Your task to perform on an android device: turn off improve location accuracy Image 0: 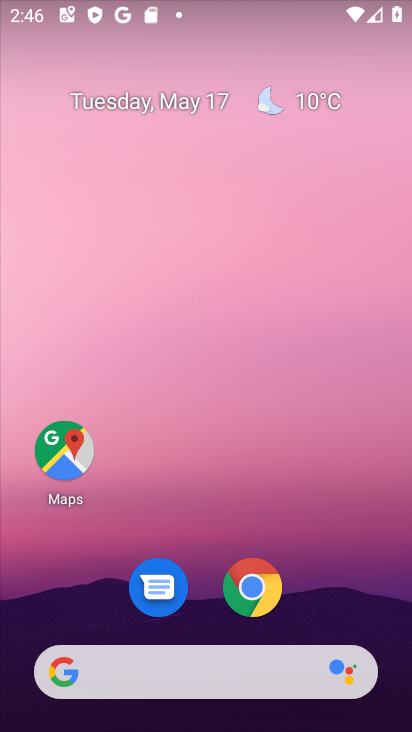
Step 0: drag from (292, 554) to (231, 39)
Your task to perform on an android device: turn off improve location accuracy Image 1: 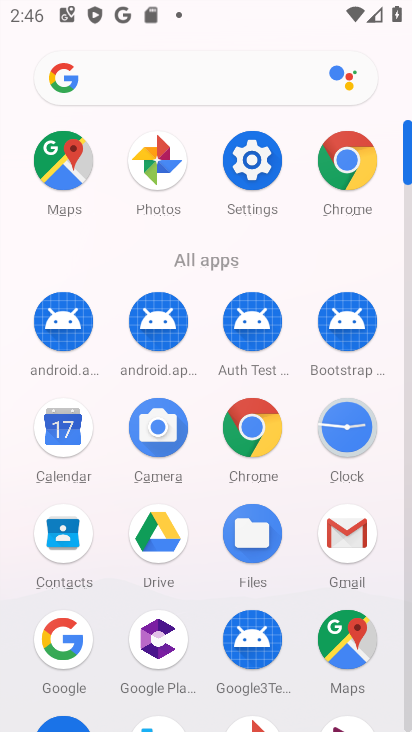
Step 1: click (252, 158)
Your task to perform on an android device: turn off improve location accuracy Image 2: 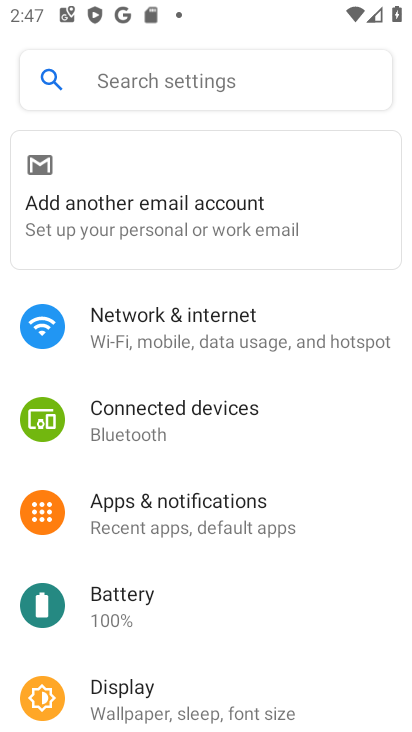
Step 2: drag from (330, 627) to (297, 184)
Your task to perform on an android device: turn off improve location accuracy Image 3: 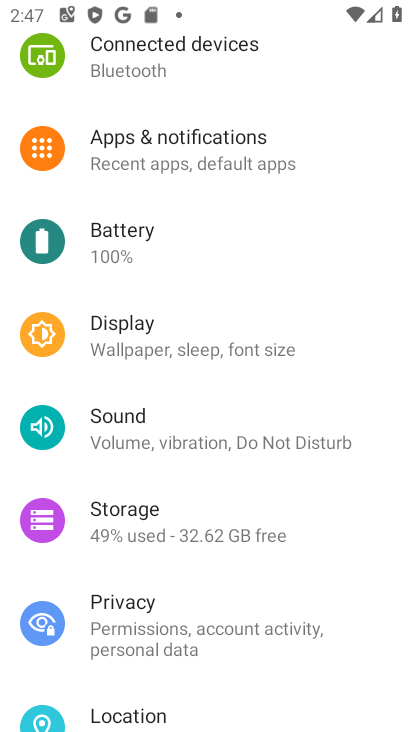
Step 3: drag from (275, 580) to (269, 190)
Your task to perform on an android device: turn off improve location accuracy Image 4: 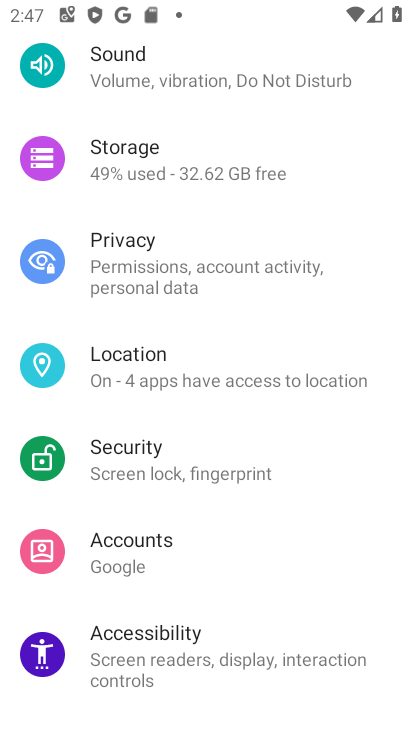
Step 4: click (216, 345)
Your task to perform on an android device: turn off improve location accuracy Image 5: 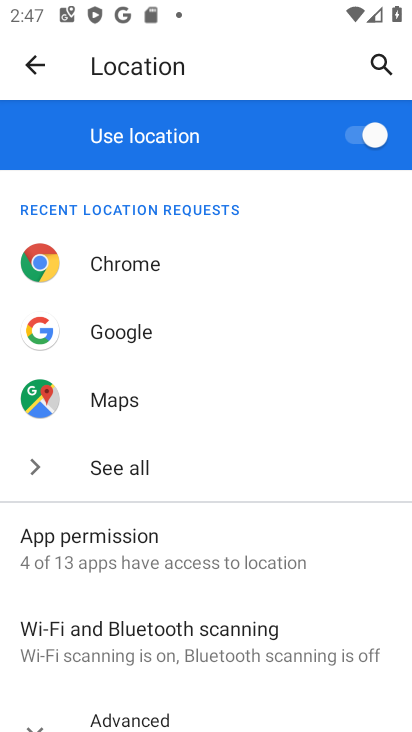
Step 5: drag from (274, 641) to (272, 226)
Your task to perform on an android device: turn off improve location accuracy Image 6: 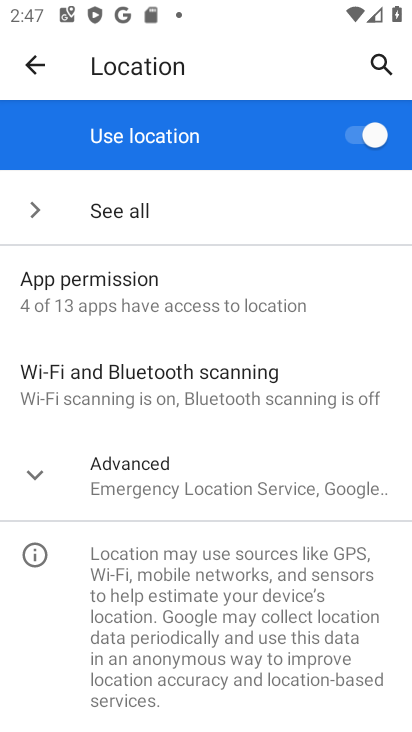
Step 6: click (166, 481)
Your task to perform on an android device: turn off improve location accuracy Image 7: 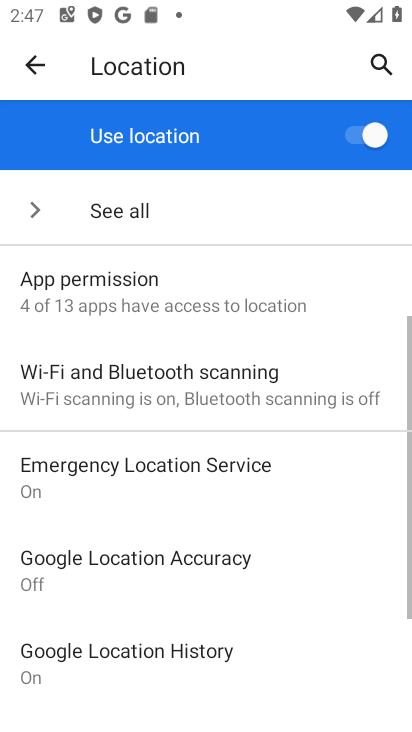
Step 7: drag from (241, 579) to (242, 272)
Your task to perform on an android device: turn off improve location accuracy Image 8: 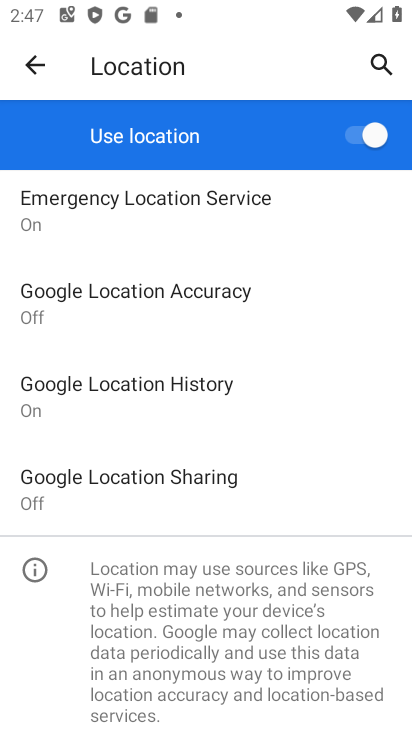
Step 8: click (216, 292)
Your task to perform on an android device: turn off improve location accuracy Image 9: 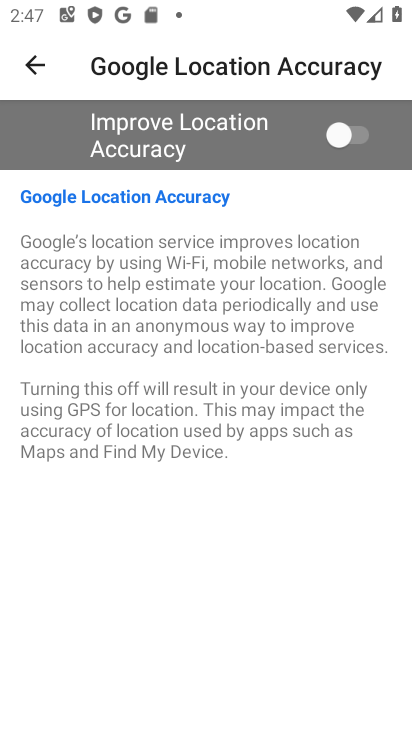
Step 9: task complete